Your task to perform on an android device: Go to eBay Image 0: 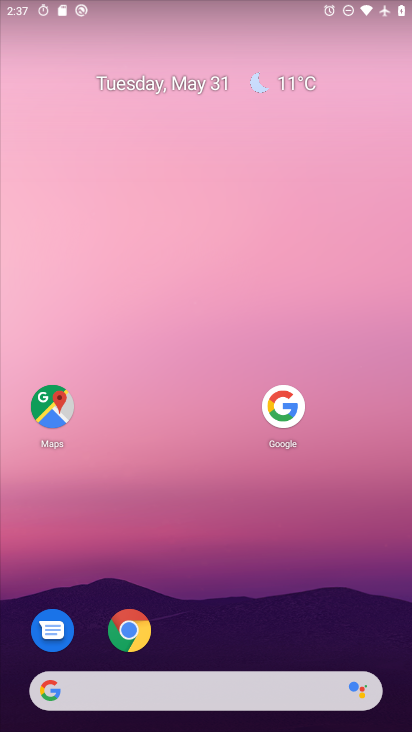
Step 0: drag from (203, 695) to (350, 110)
Your task to perform on an android device: Go to eBay Image 1: 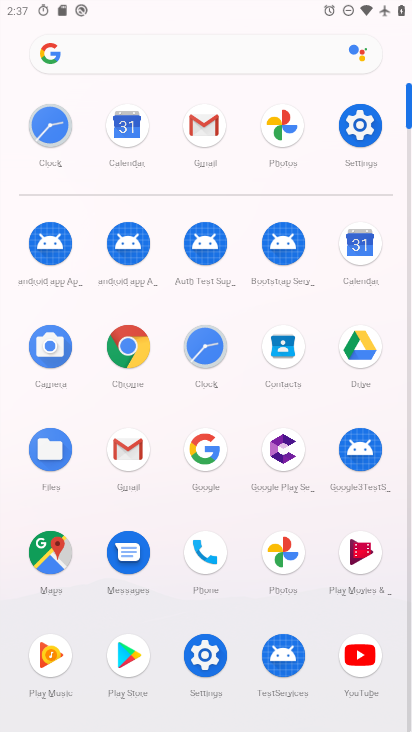
Step 1: click (132, 360)
Your task to perform on an android device: Go to eBay Image 2: 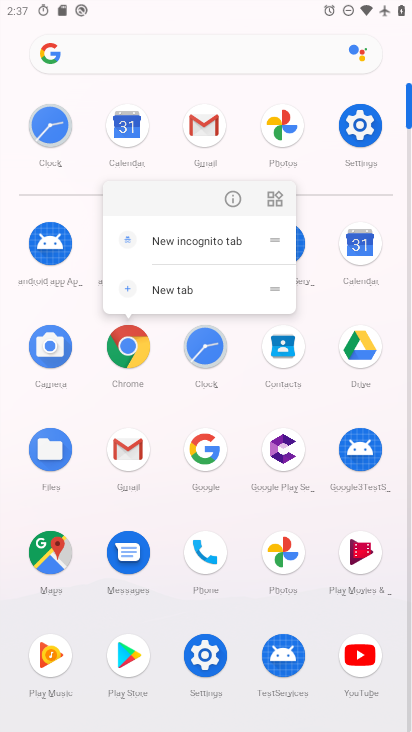
Step 2: click (130, 350)
Your task to perform on an android device: Go to eBay Image 3: 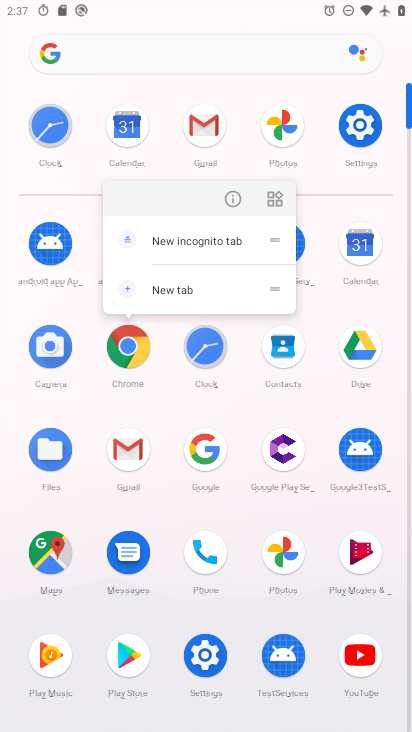
Step 3: click (129, 350)
Your task to perform on an android device: Go to eBay Image 4: 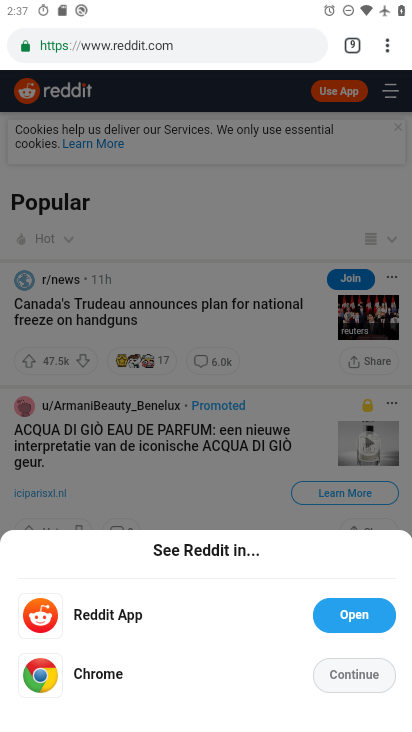
Step 4: drag from (382, 48) to (270, 157)
Your task to perform on an android device: Go to eBay Image 5: 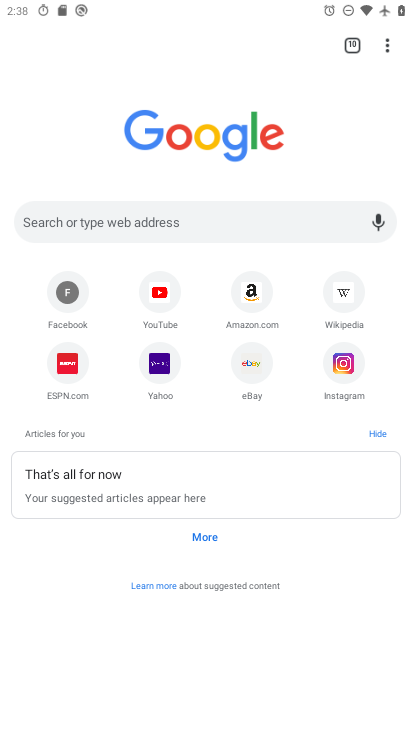
Step 5: click (247, 379)
Your task to perform on an android device: Go to eBay Image 6: 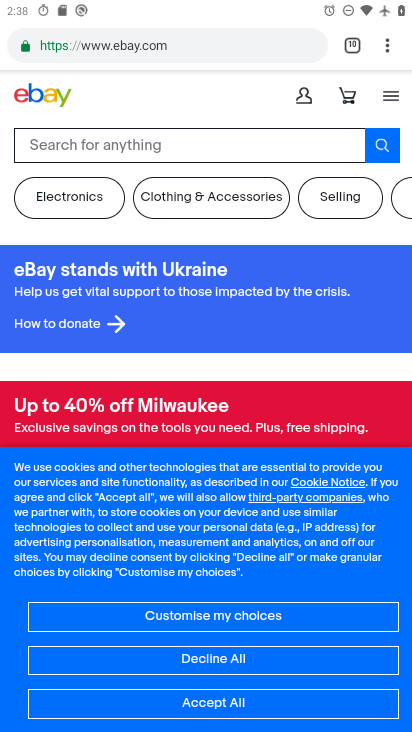
Step 6: task complete